Your task to perform on an android device: Go to Amazon Image 0: 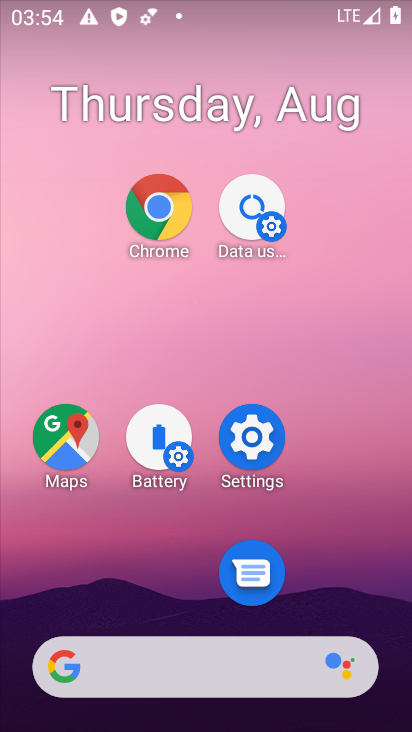
Step 0: click (94, 13)
Your task to perform on an android device: Go to Amazon Image 1: 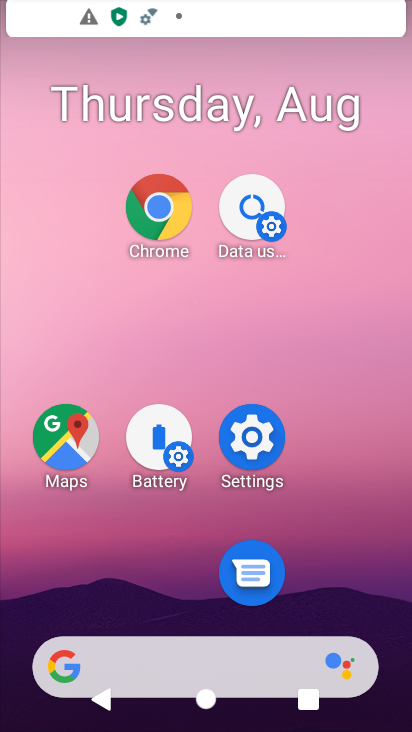
Step 1: drag from (153, 574) to (106, 24)
Your task to perform on an android device: Go to Amazon Image 2: 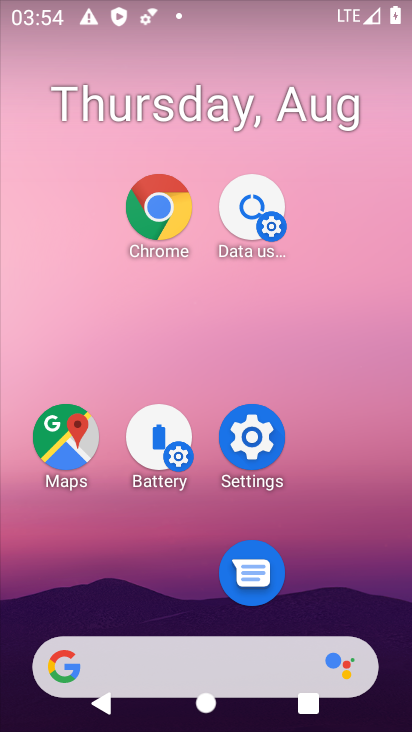
Step 2: drag from (127, 554) to (128, 158)
Your task to perform on an android device: Go to Amazon Image 3: 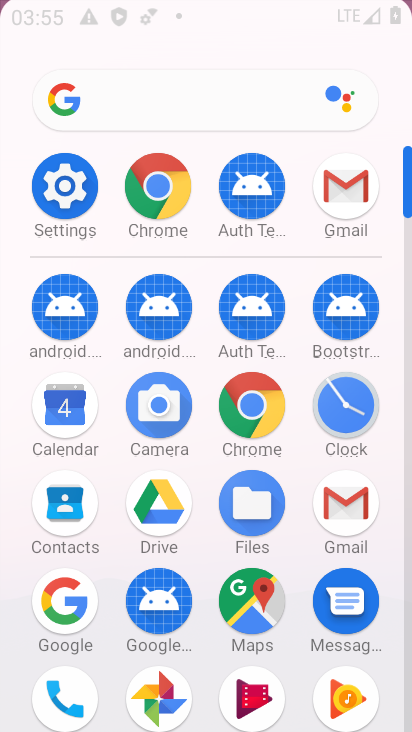
Step 3: drag from (267, 568) to (247, 62)
Your task to perform on an android device: Go to Amazon Image 4: 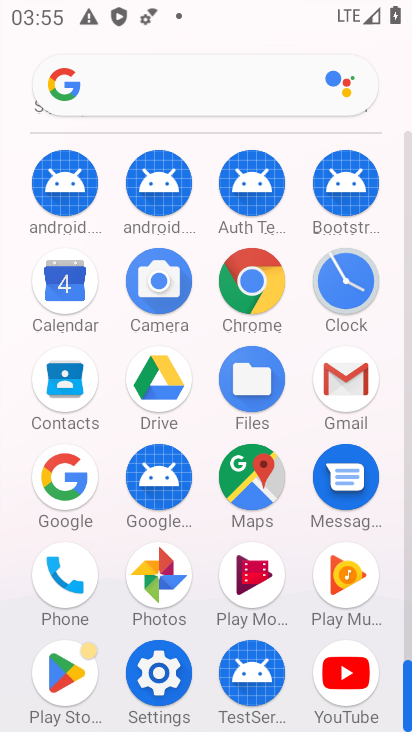
Step 4: click (255, 292)
Your task to perform on an android device: Go to Amazon Image 5: 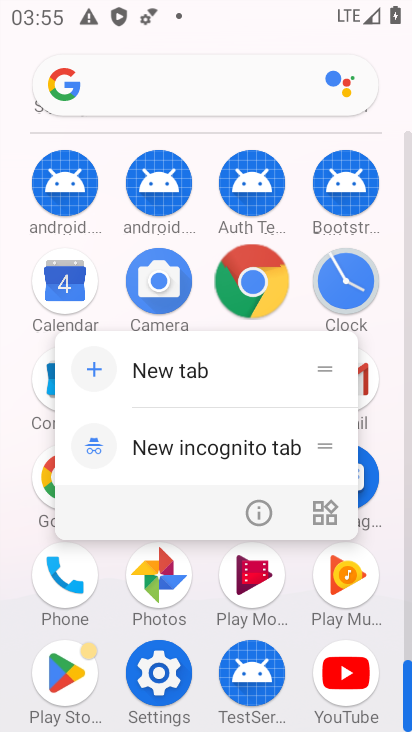
Step 5: click (255, 292)
Your task to perform on an android device: Go to Amazon Image 6: 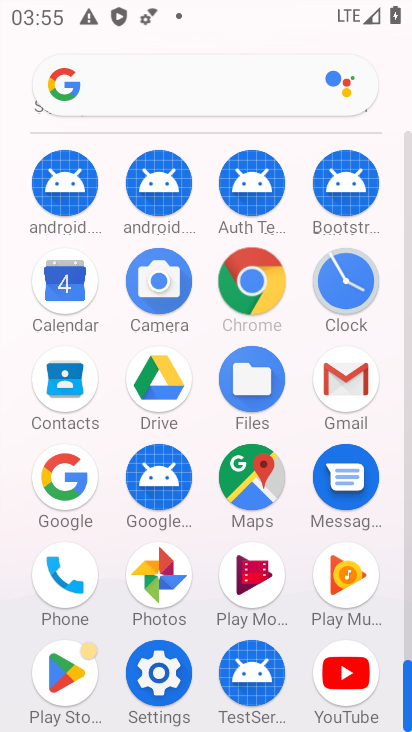
Step 6: click (255, 291)
Your task to perform on an android device: Go to Amazon Image 7: 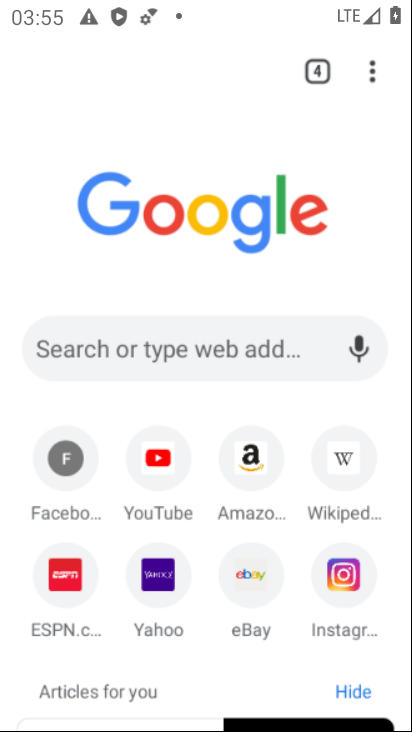
Step 7: click (256, 290)
Your task to perform on an android device: Go to Amazon Image 8: 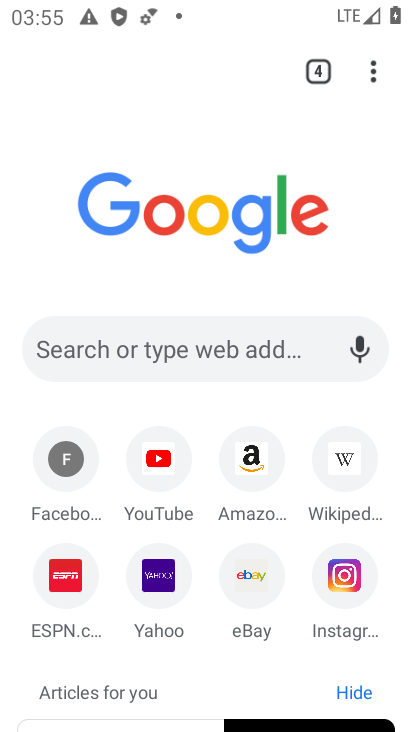
Step 8: click (249, 456)
Your task to perform on an android device: Go to Amazon Image 9: 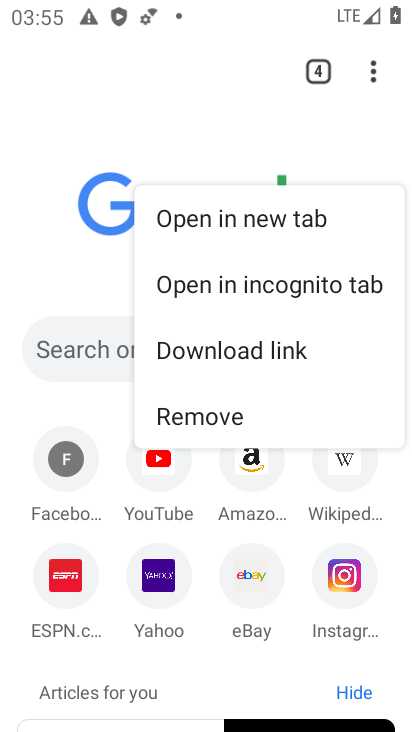
Step 9: click (249, 456)
Your task to perform on an android device: Go to Amazon Image 10: 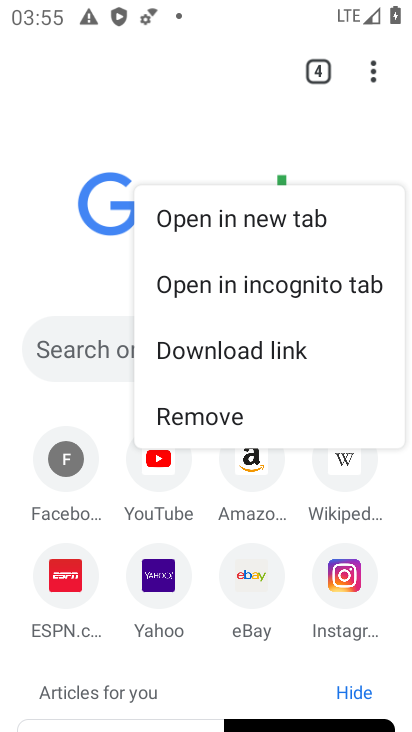
Step 10: click (249, 460)
Your task to perform on an android device: Go to Amazon Image 11: 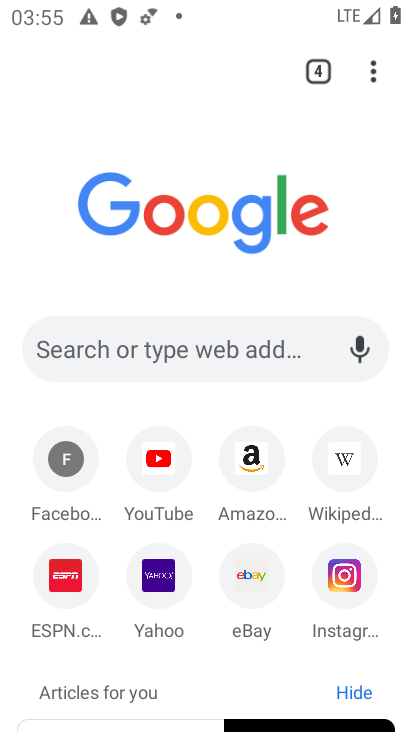
Step 11: click (255, 468)
Your task to perform on an android device: Go to Amazon Image 12: 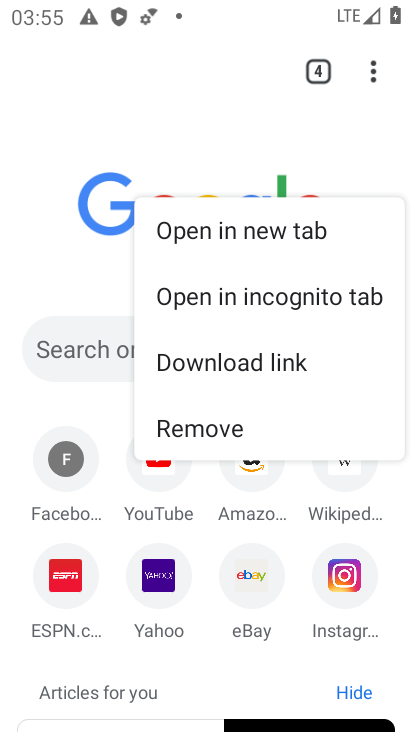
Step 12: click (254, 499)
Your task to perform on an android device: Go to Amazon Image 13: 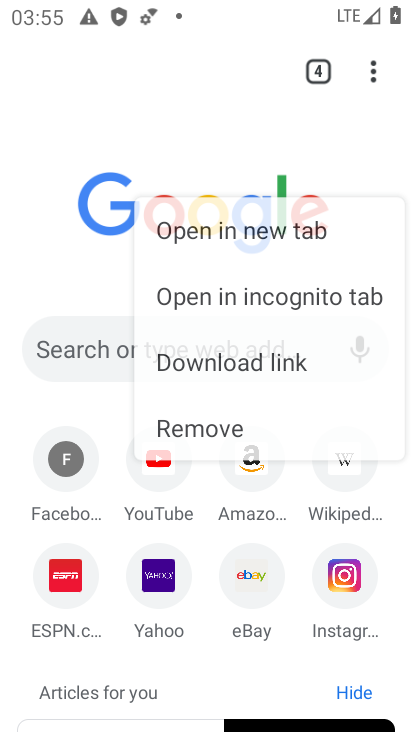
Step 13: click (254, 499)
Your task to perform on an android device: Go to Amazon Image 14: 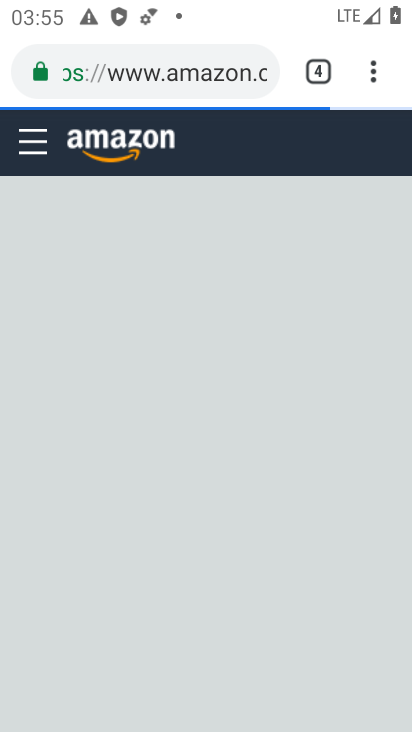
Step 14: click (248, 466)
Your task to perform on an android device: Go to Amazon Image 15: 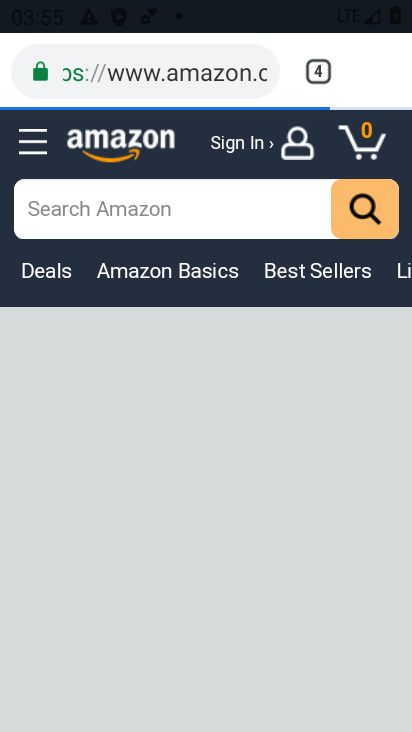
Step 15: task complete